Your task to perform on an android device: turn off priority inbox in the gmail app Image 0: 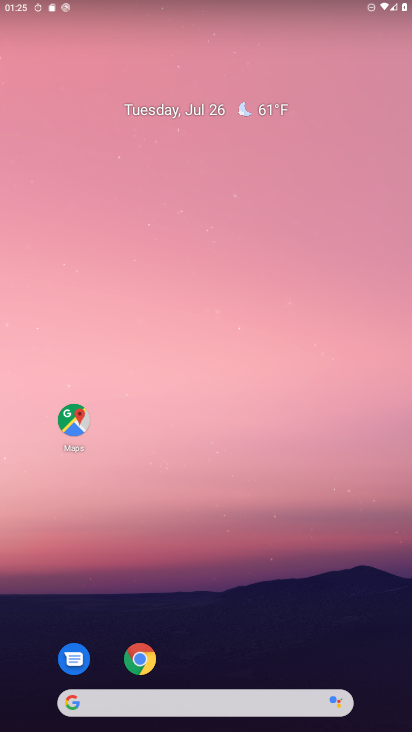
Step 0: drag from (31, 673) to (182, 168)
Your task to perform on an android device: turn off priority inbox in the gmail app Image 1: 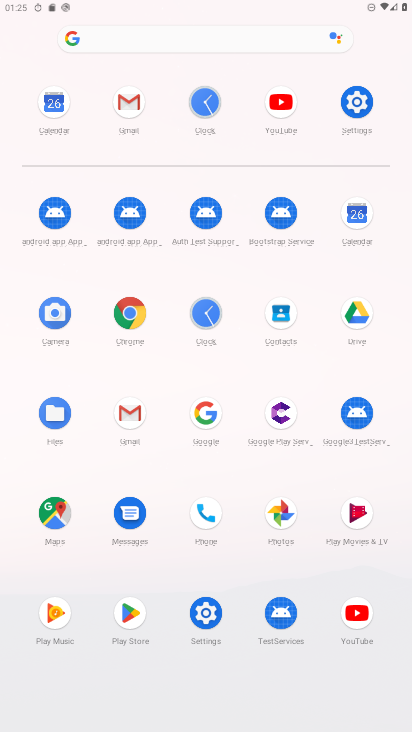
Step 1: click (139, 409)
Your task to perform on an android device: turn off priority inbox in the gmail app Image 2: 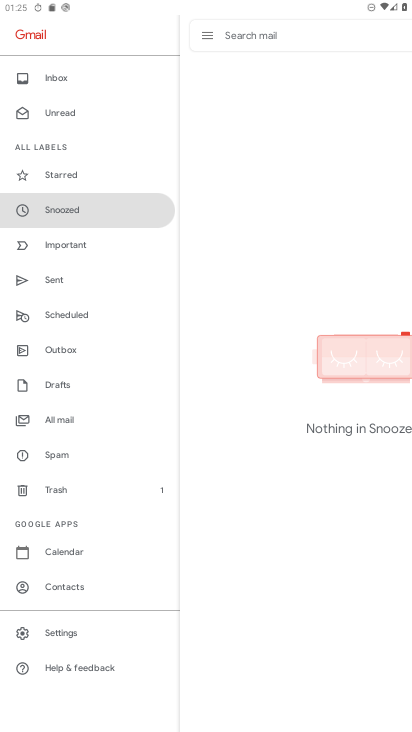
Step 2: click (59, 631)
Your task to perform on an android device: turn off priority inbox in the gmail app Image 3: 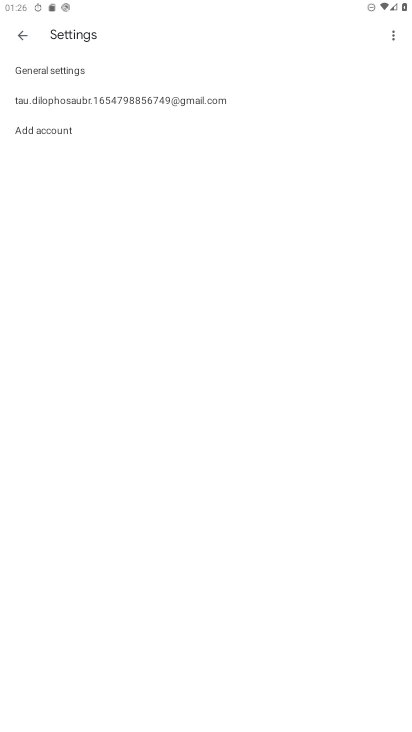
Step 3: click (60, 97)
Your task to perform on an android device: turn off priority inbox in the gmail app Image 4: 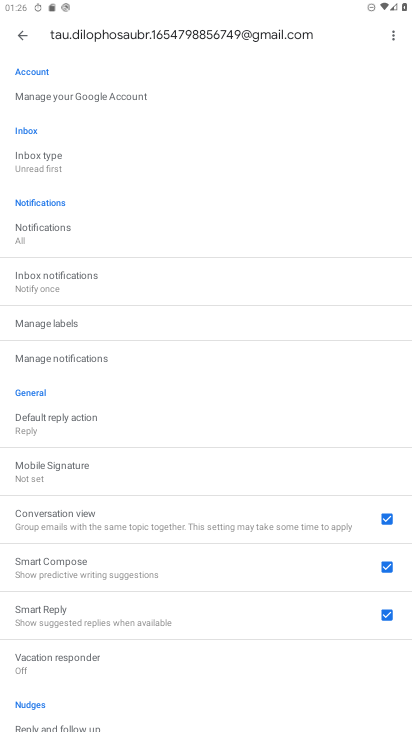
Step 4: drag from (205, 694) to (280, 181)
Your task to perform on an android device: turn off priority inbox in the gmail app Image 5: 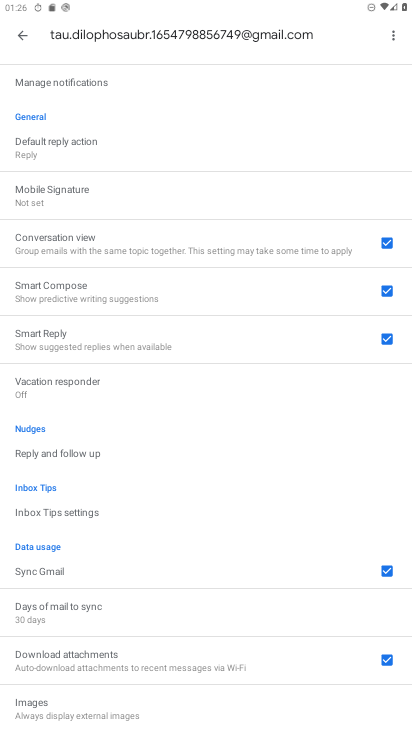
Step 5: drag from (184, 461) to (187, 271)
Your task to perform on an android device: turn off priority inbox in the gmail app Image 6: 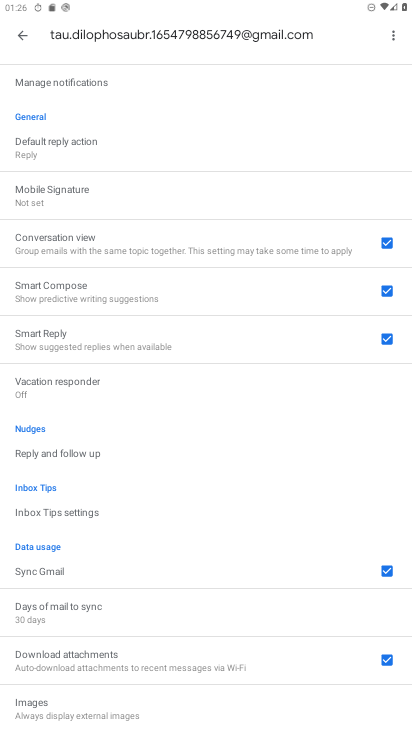
Step 6: drag from (179, 115) to (225, 489)
Your task to perform on an android device: turn off priority inbox in the gmail app Image 7: 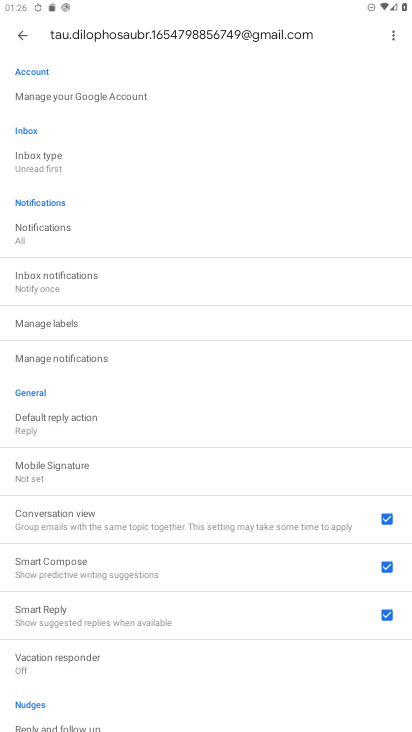
Step 7: click (84, 161)
Your task to perform on an android device: turn off priority inbox in the gmail app Image 8: 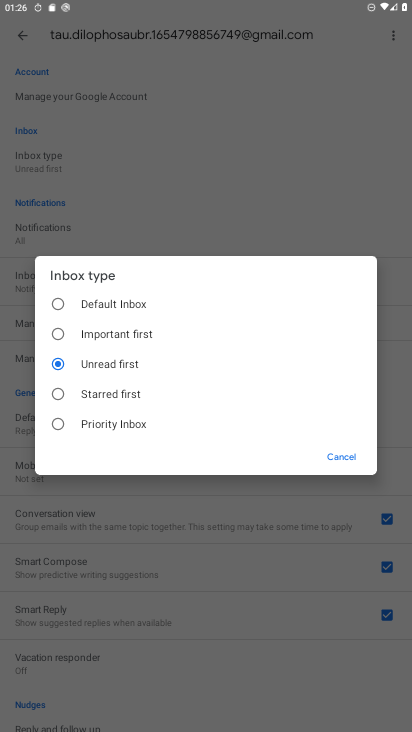
Step 8: click (65, 426)
Your task to perform on an android device: turn off priority inbox in the gmail app Image 9: 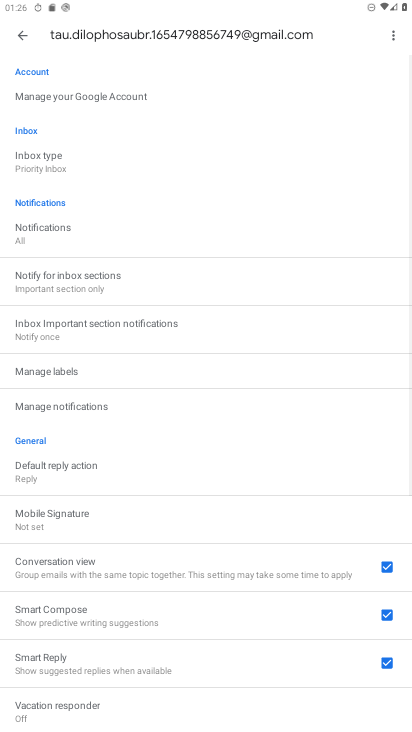
Step 9: task complete